Your task to perform on an android device: Show the shopping cart on costco.com. Search for acer predator on costco.com, select the first entry, and add it to the cart. Image 0: 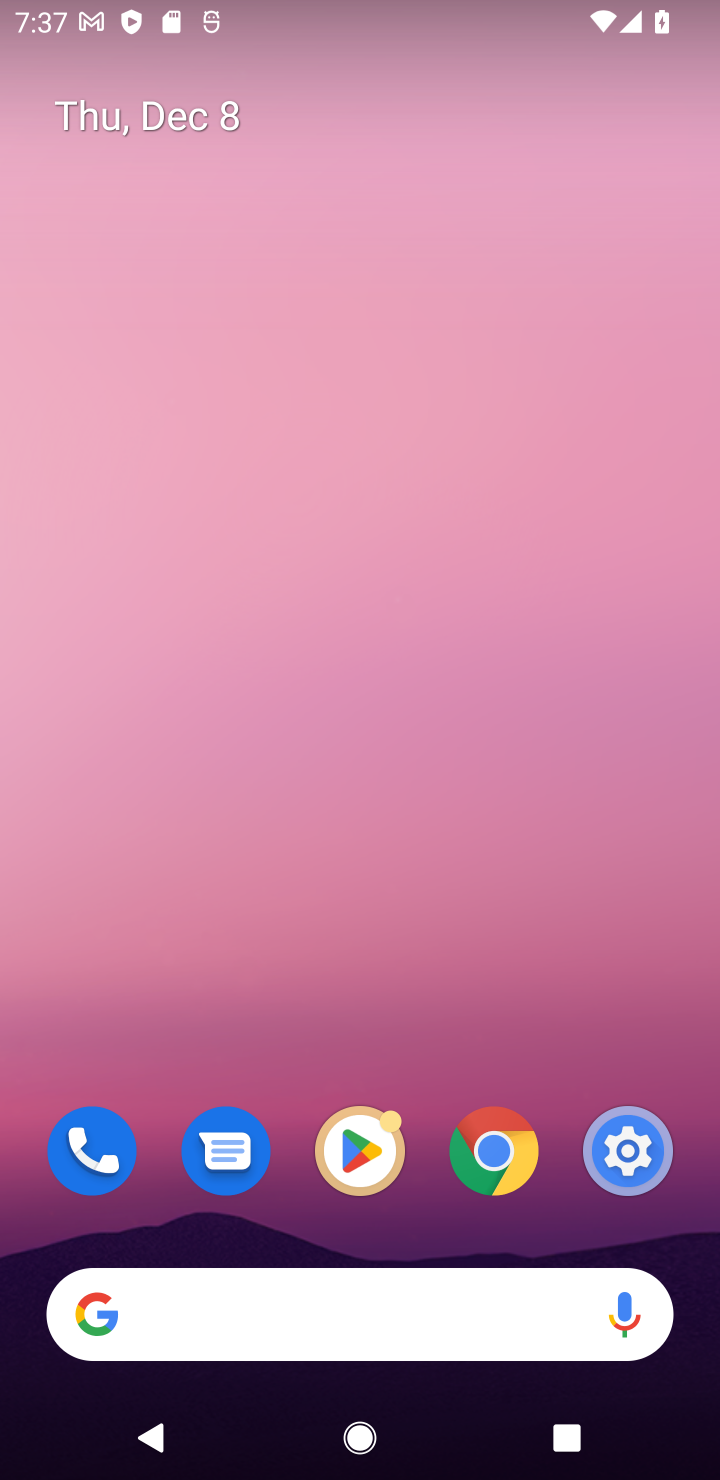
Step 0: task complete